Your task to perform on an android device: Clear all items from cart on walmart.com. Image 0: 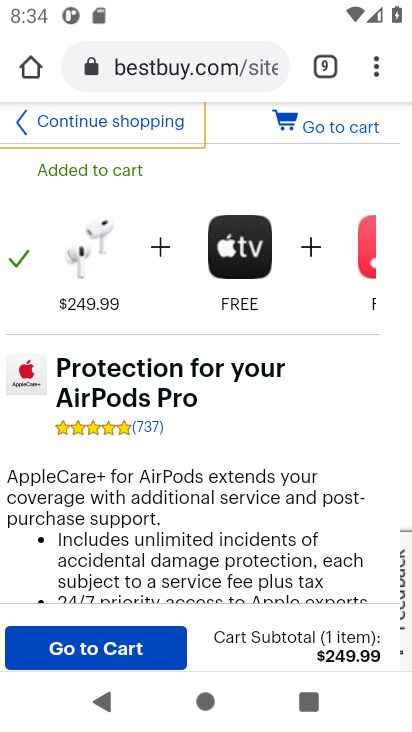
Step 0: click (168, 69)
Your task to perform on an android device: Clear all items from cart on walmart.com. Image 1: 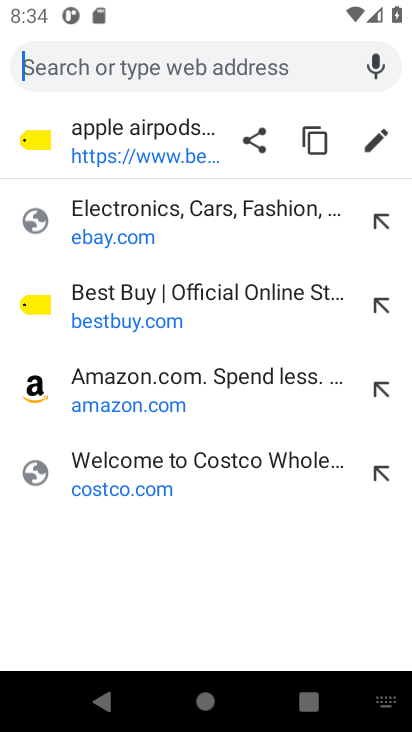
Step 1: type "walmart.com"
Your task to perform on an android device: Clear all items from cart on walmart.com. Image 2: 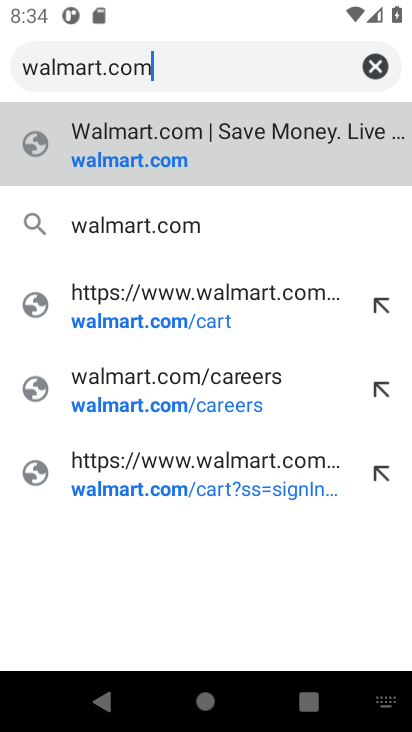
Step 2: click (89, 158)
Your task to perform on an android device: Clear all items from cart on walmart.com. Image 3: 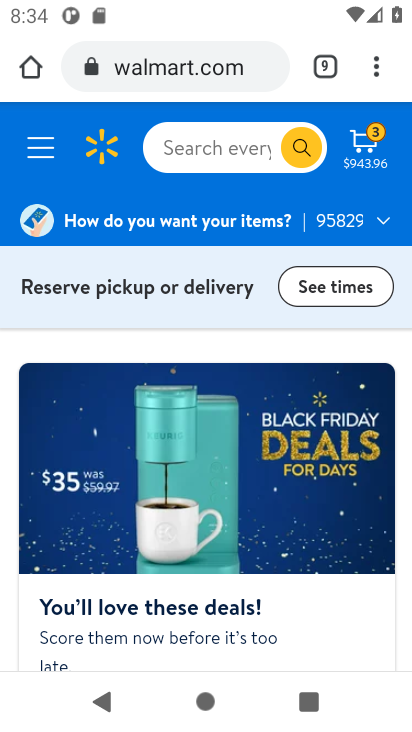
Step 3: click (360, 154)
Your task to perform on an android device: Clear all items from cart on walmart.com. Image 4: 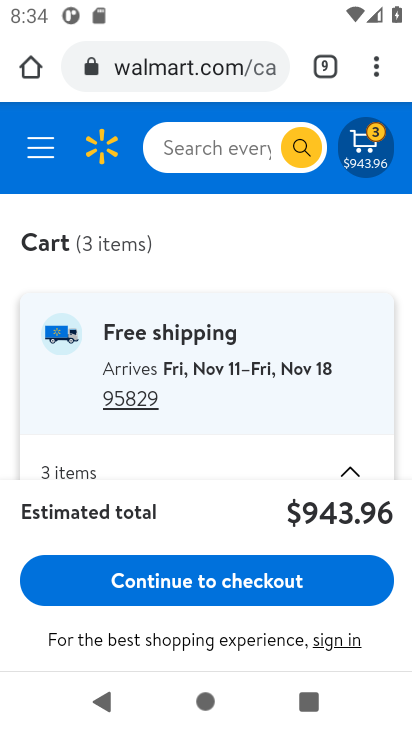
Step 4: drag from (186, 482) to (205, 254)
Your task to perform on an android device: Clear all items from cart on walmart.com. Image 5: 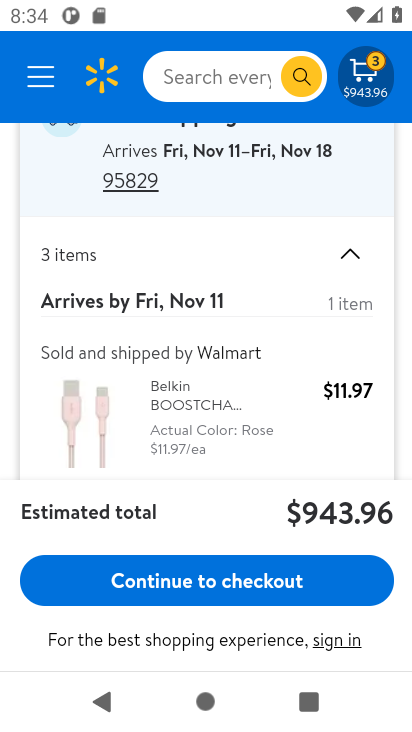
Step 5: drag from (203, 401) to (208, 205)
Your task to perform on an android device: Clear all items from cart on walmart.com. Image 6: 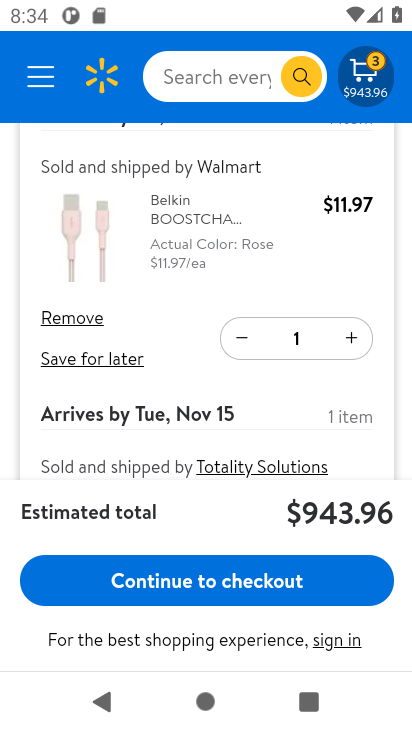
Step 6: click (76, 319)
Your task to perform on an android device: Clear all items from cart on walmart.com. Image 7: 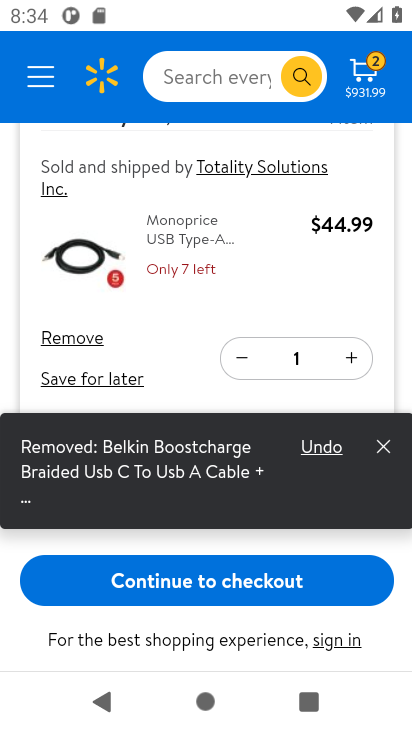
Step 7: click (381, 446)
Your task to perform on an android device: Clear all items from cart on walmart.com. Image 8: 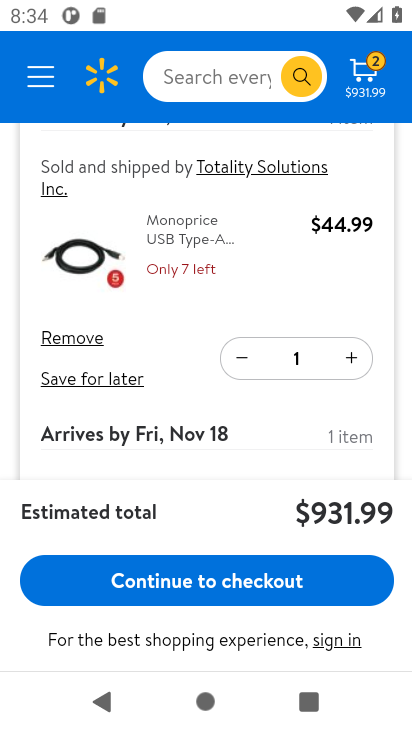
Step 8: click (67, 347)
Your task to perform on an android device: Clear all items from cart on walmart.com. Image 9: 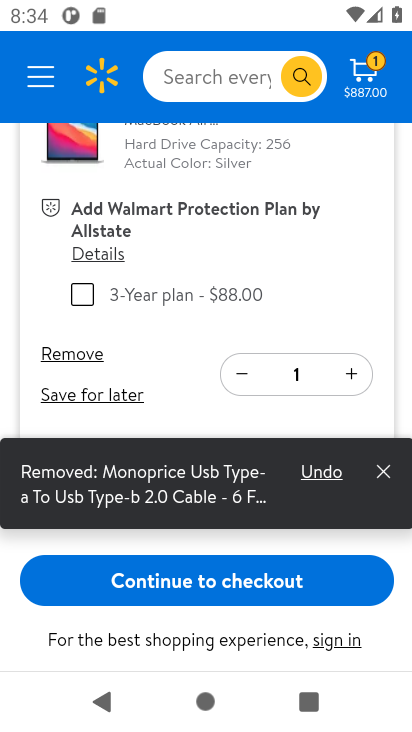
Step 9: click (77, 398)
Your task to perform on an android device: Clear all items from cart on walmart.com. Image 10: 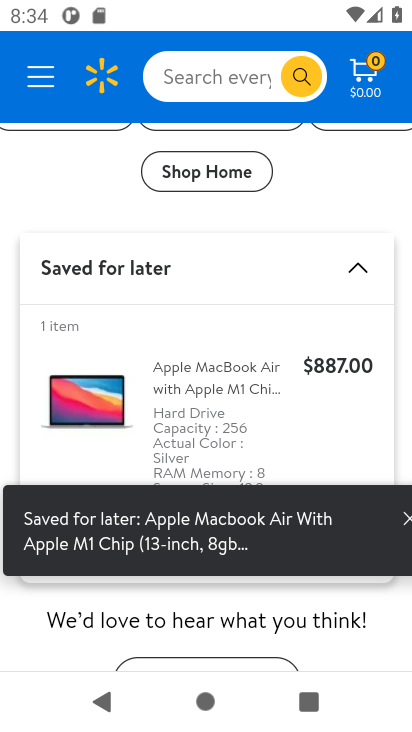
Step 10: drag from (86, 423) to (105, 239)
Your task to perform on an android device: Clear all items from cart on walmart.com. Image 11: 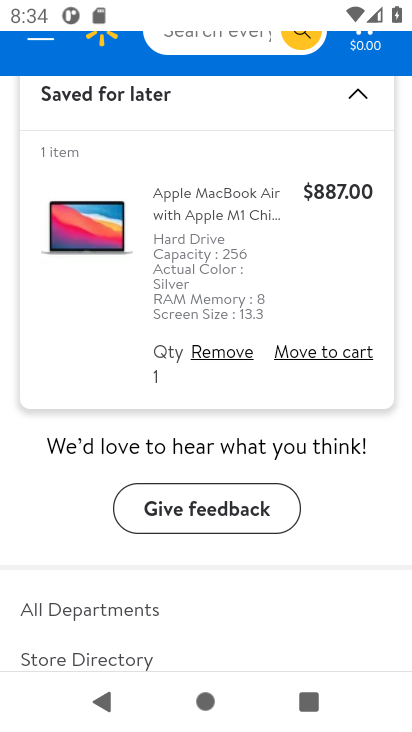
Step 11: click (220, 352)
Your task to perform on an android device: Clear all items from cart on walmart.com. Image 12: 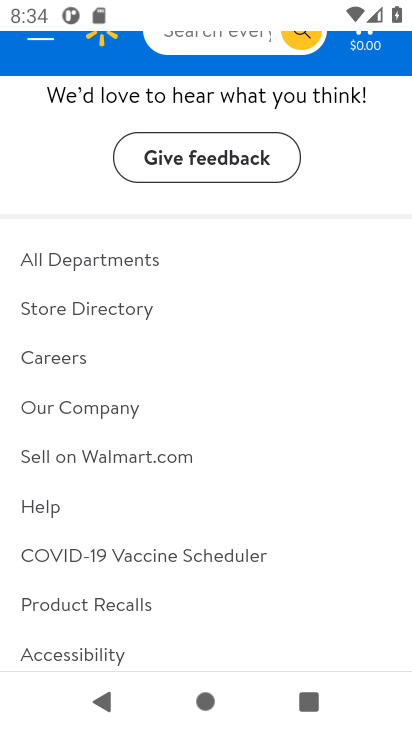
Step 12: task complete